Your task to perform on an android device: Show me popular videos on Youtube Image 0: 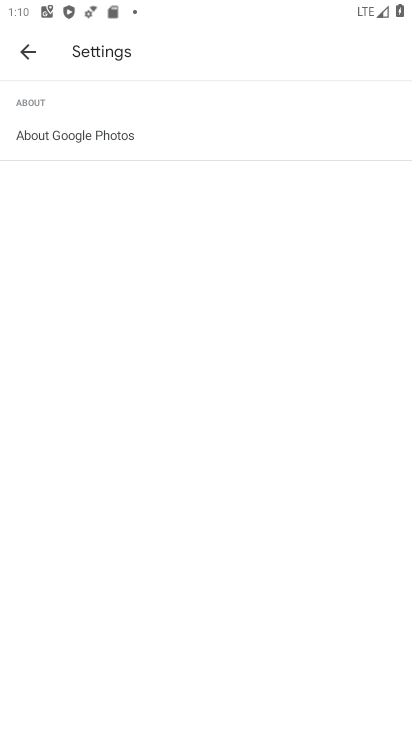
Step 0: press home button
Your task to perform on an android device: Show me popular videos on Youtube Image 1: 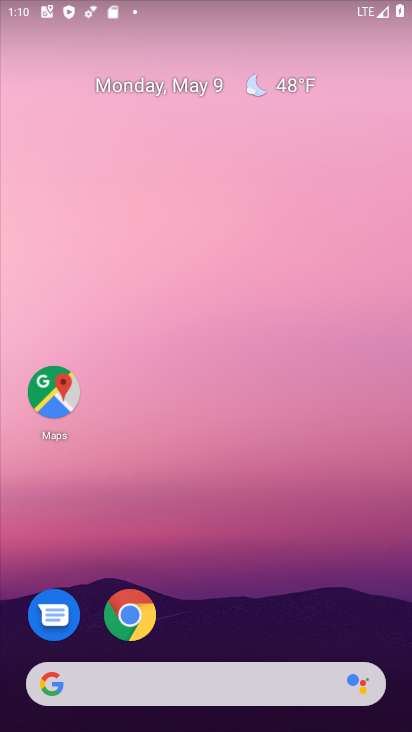
Step 1: drag from (383, 625) to (339, 40)
Your task to perform on an android device: Show me popular videos on Youtube Image 2: 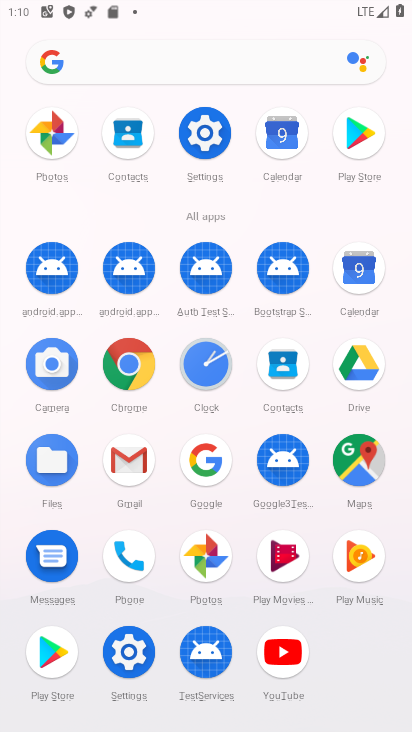
Step 2: click (277, 648)
Your task to perform on an android device: Show me popular videos on Youtube Image 3: 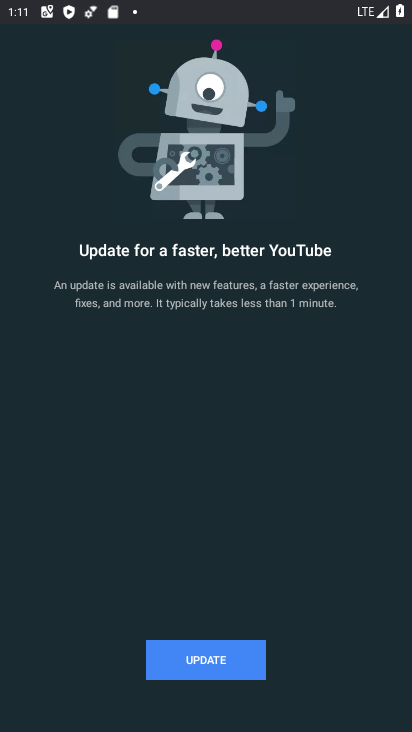
Step 3: click (197, 664)
Your task to perform on an android device: Show me popular videos on Youtube Image 4: 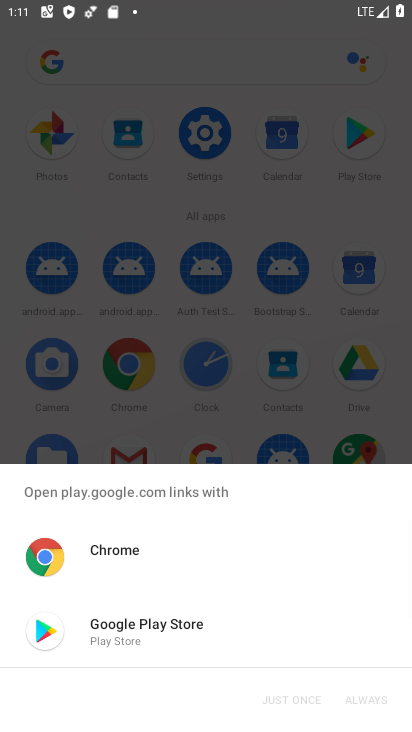
Step 4: click (109, 628)
Your task to perform on an android device: Show me popular videos on Youtube Image 5: 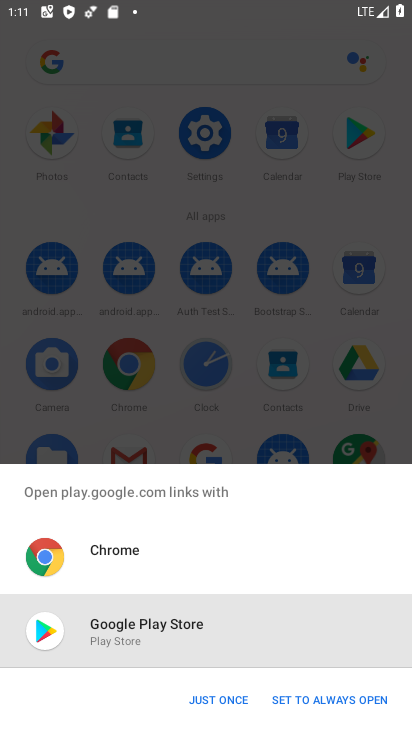
Step 5: click (210, 699)
Your task to perform on an android device: Show me popular videos on Youtube Image 6: 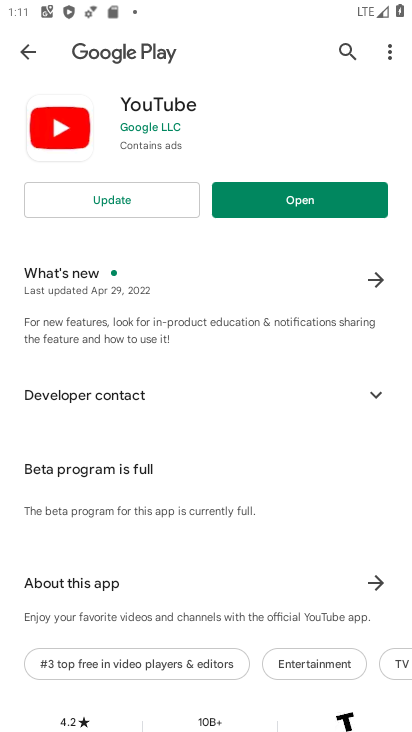
Step 6: click (113, 195)
Your task to perform on an android device: Show me popular videos on Youtube Image 7: 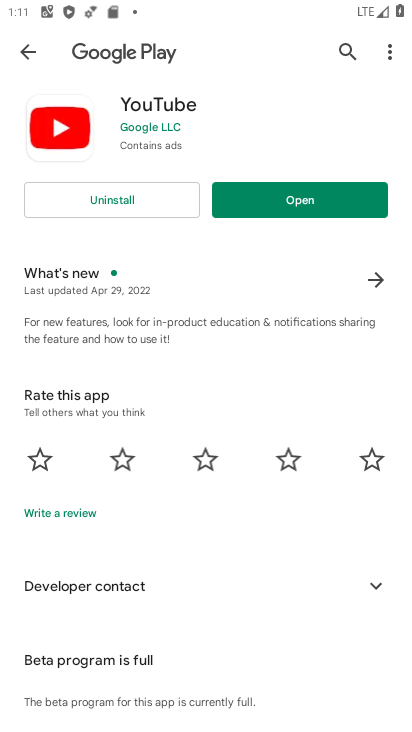
Step 7: click (298, 204)
Your task to perform on an android device: Show me popular videos on Youtube Image 8: 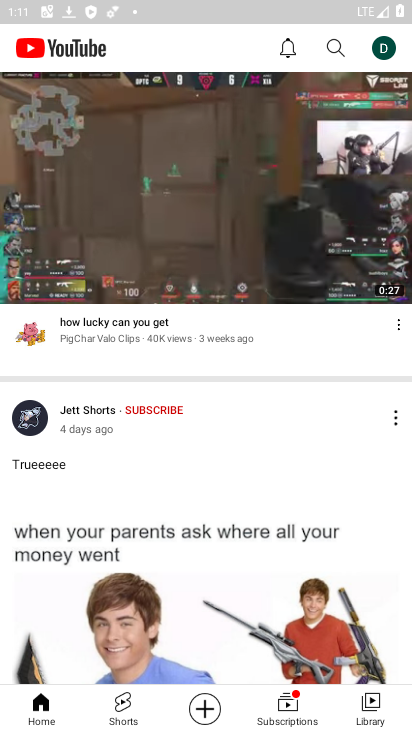
Step 8: task complete